Your task to perform on an android device: toggle sleep mode Image 0: 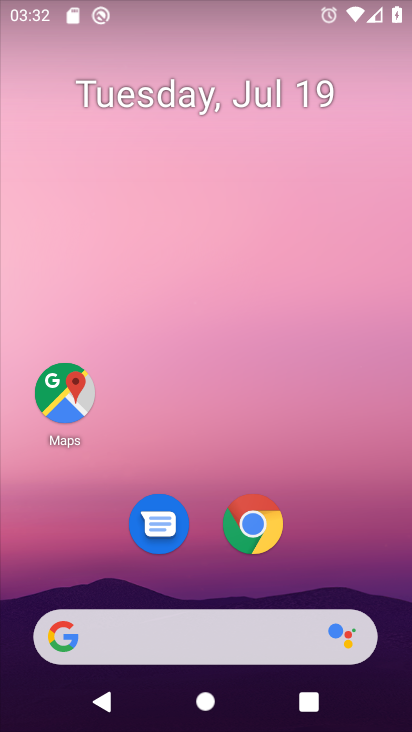
Step 0: drag from (337, 546) to (295, 45)
Your task to perform on an android device: toggle sleep mode Image 1: 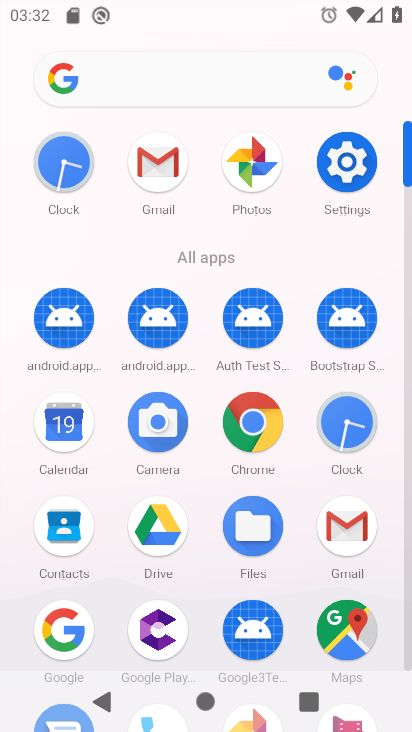
Step 1: click (355, 172)
Your task to perform on an android device: toggle sleep mode Image 2: 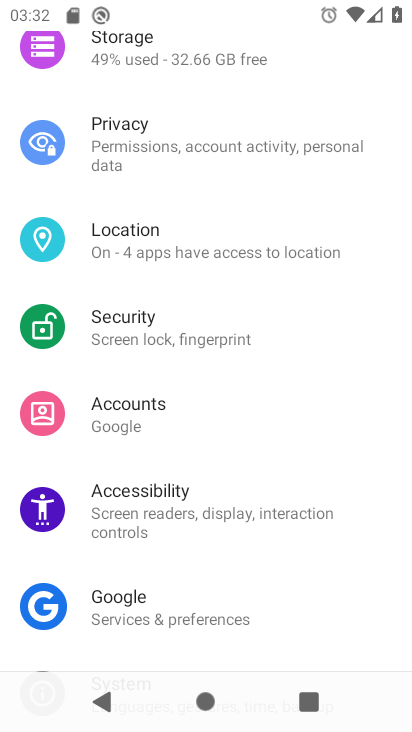
Step 2: drag from (237, 108) to (264, 590)
Your task to perform on an android device: toggle sleep mode Image 3: 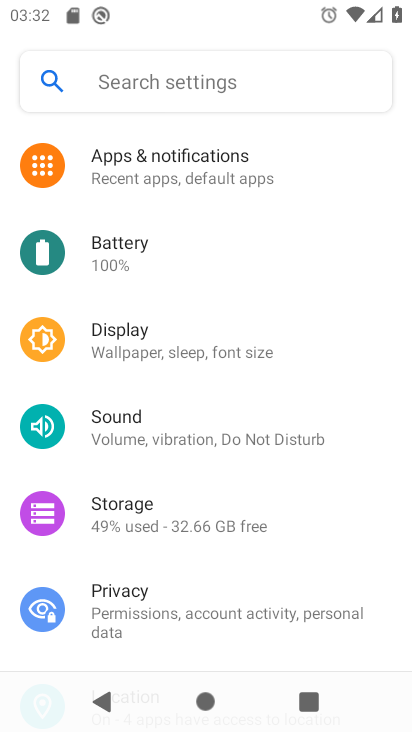
Step 3: click (201, 348)
Your task to perform on an android device: toggle sleep mode Image 4: 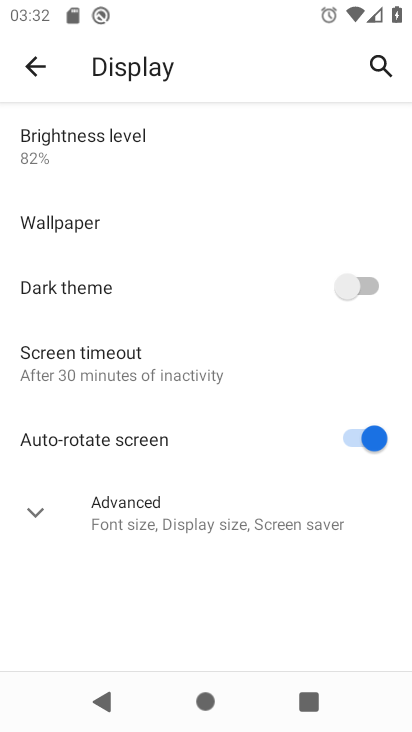
Step 4: click (35, 507)
Your task to perform on an android device: toggle sleep mode Image 5: 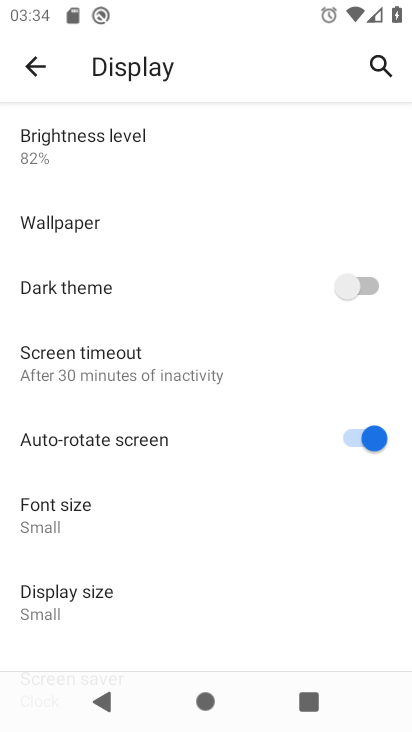
Step 5: task complete